Your task to perform on an android device: Open Google Chrome Image 0: 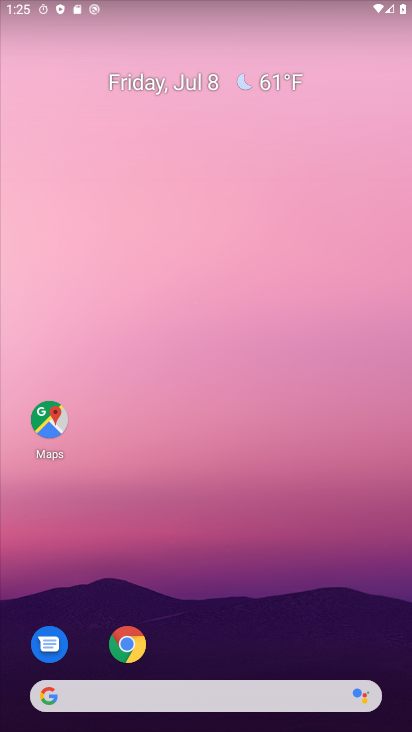
Step 0: click (132, 643)
Your task to perform on an android device: Open Google Chrome Image 1: 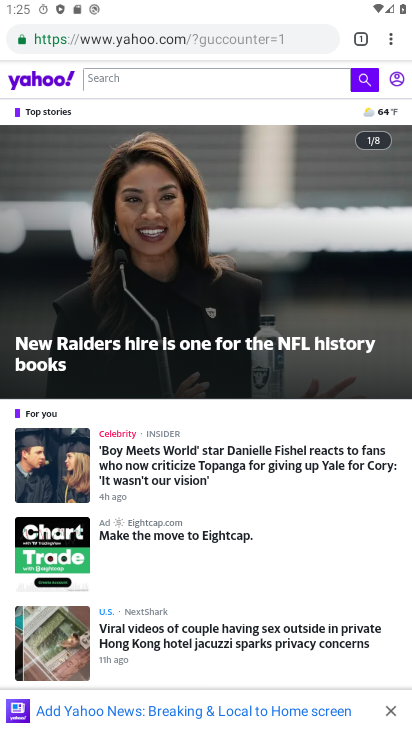
Step 1: task complete